Your task to perform on an android device: Open the Play Movies app and select the watchlist tab. Image 0: 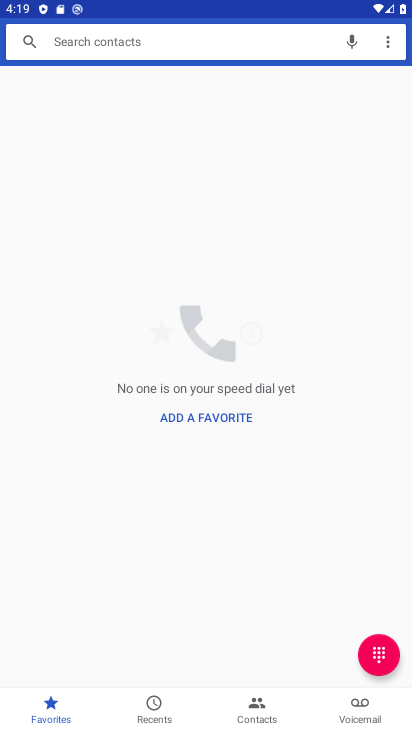
Step 0: press back button
Your task to perform on an android device: Open the Play Movies app and select the watchlist tab. Image 1: 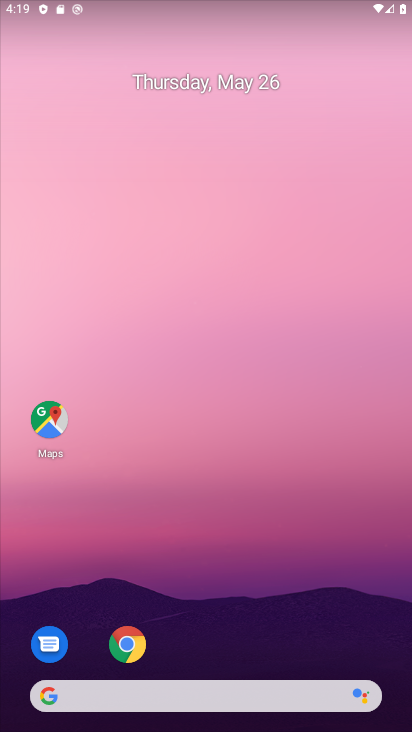
Step 1: drag from (252, 424) to (230, 75)
Your task to perform on an android device: Open the Play Movies app and select the watchlist tab. Image 2: 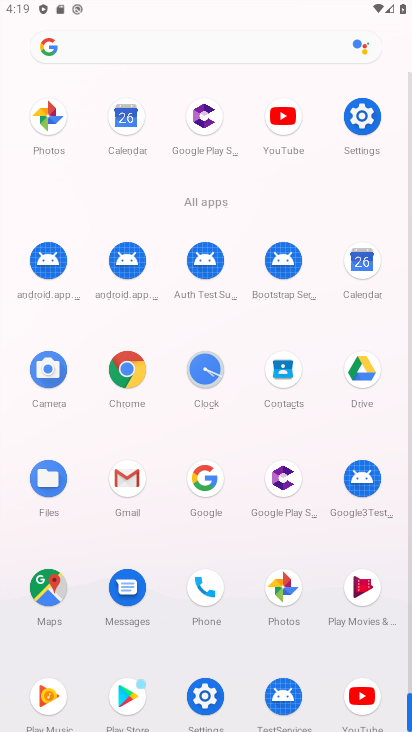
Step 2: click (361, 587)
Your task to perform on an android device: Open the Play Movies app and select the watchlist tab. Image 3: 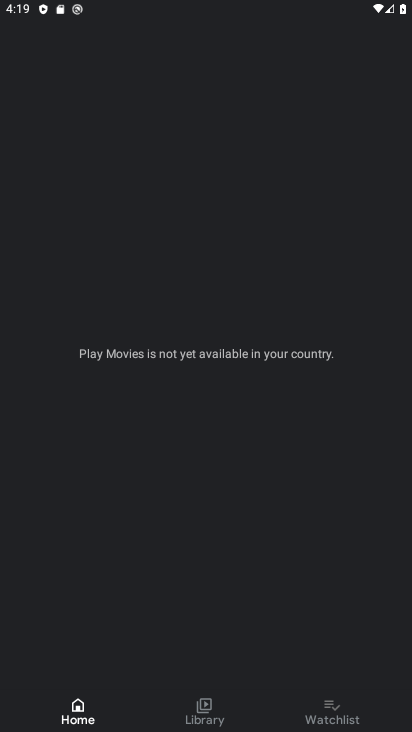
Step 3: click (337, 700)
Your task to perform on an android device: Open the Play Movies app and select the watchlist tab. Image 4: 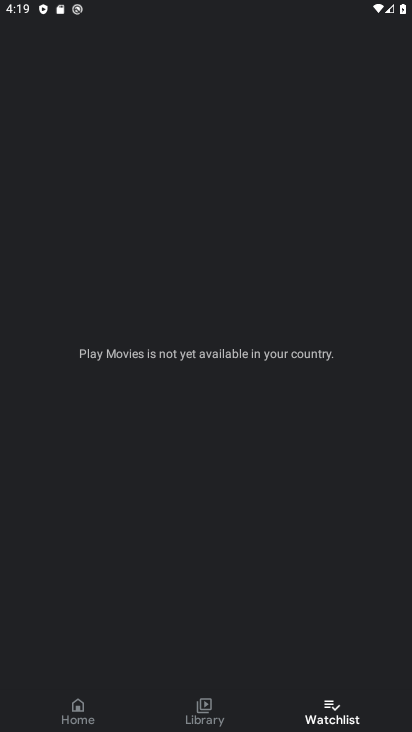
Step 4: task complete